Your task to perform on an android device: What's the weather today? Image 0: 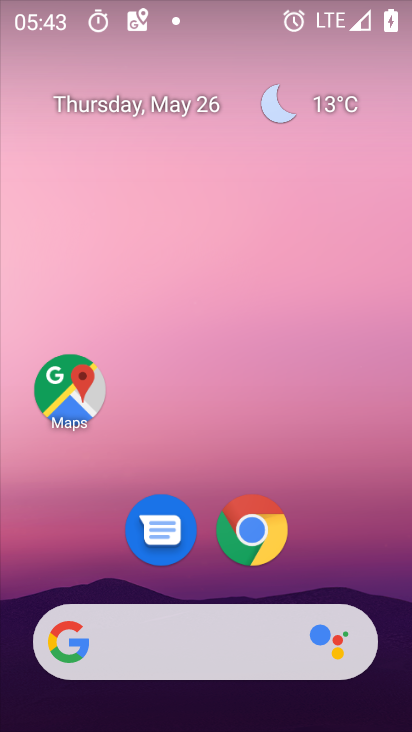
Step 0: drag from (215, 660) to (304, 18)
Your task to perform on an android device: What's the weather today? Image 1: 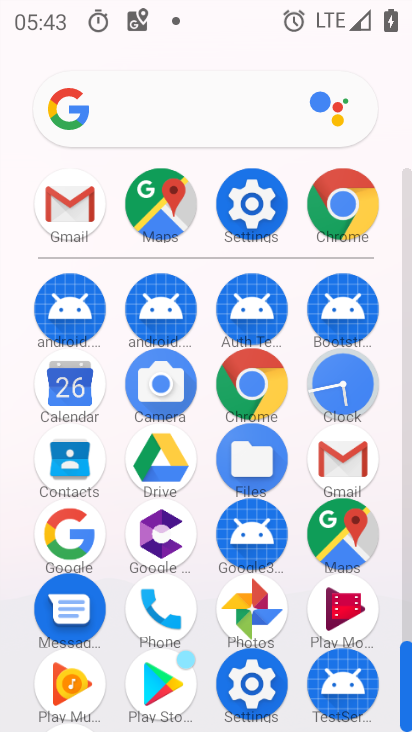
Step 1: click (74, 395)
Your task to perform on an android device: What's the weather today? Image 2: 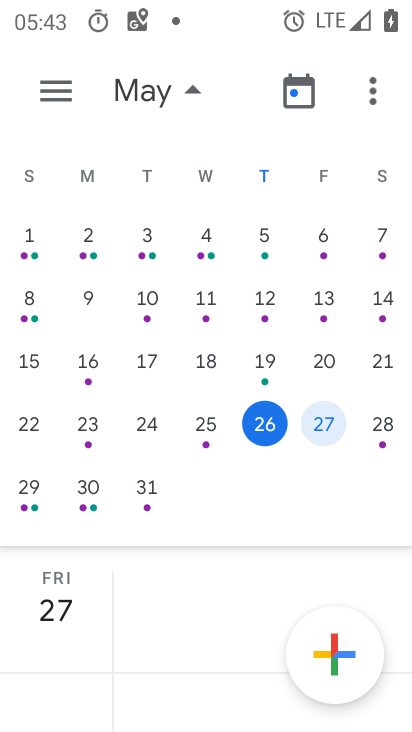
Step 2: press home button
Your task to perform on an android device: What's the weather today? Image 3: 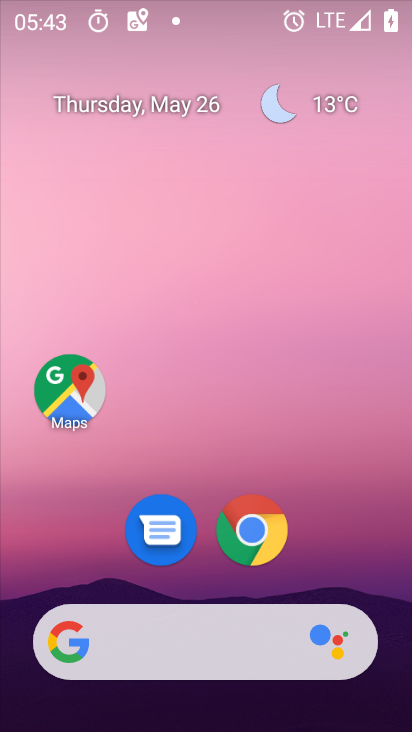
Step 3: drag from (35, 219) to (407, 255)
Your task to perform on an android device: What's the weather today? Image 4: 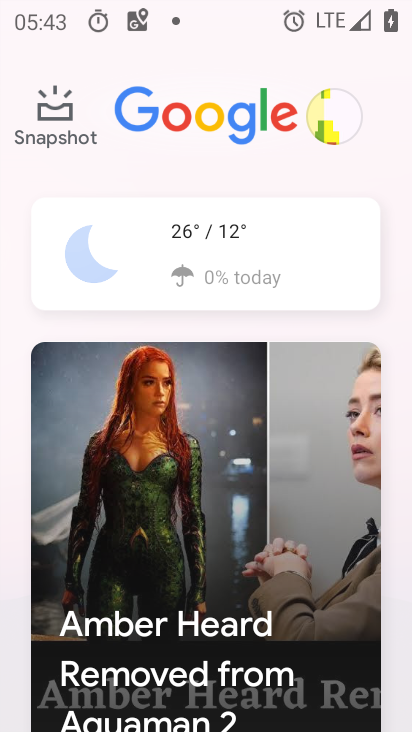
Step 4: click (254, 238)
Your task to perform on an android device: What's the weather today? Image 5: 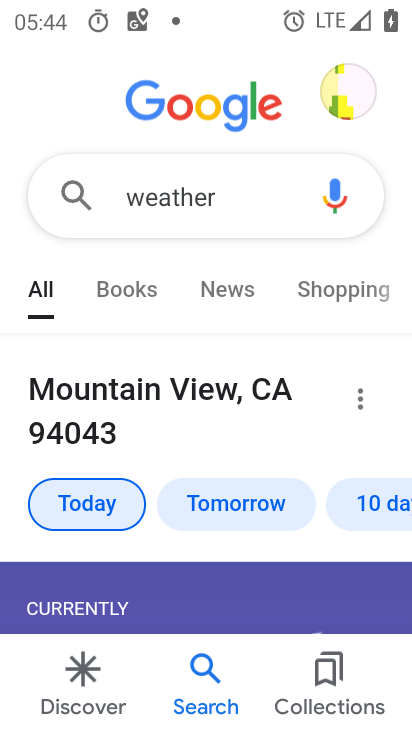
Step 5: task complete